Your task to perform on an android device: Add "usb-a to usb-b" to the cart on target.com Image 0: 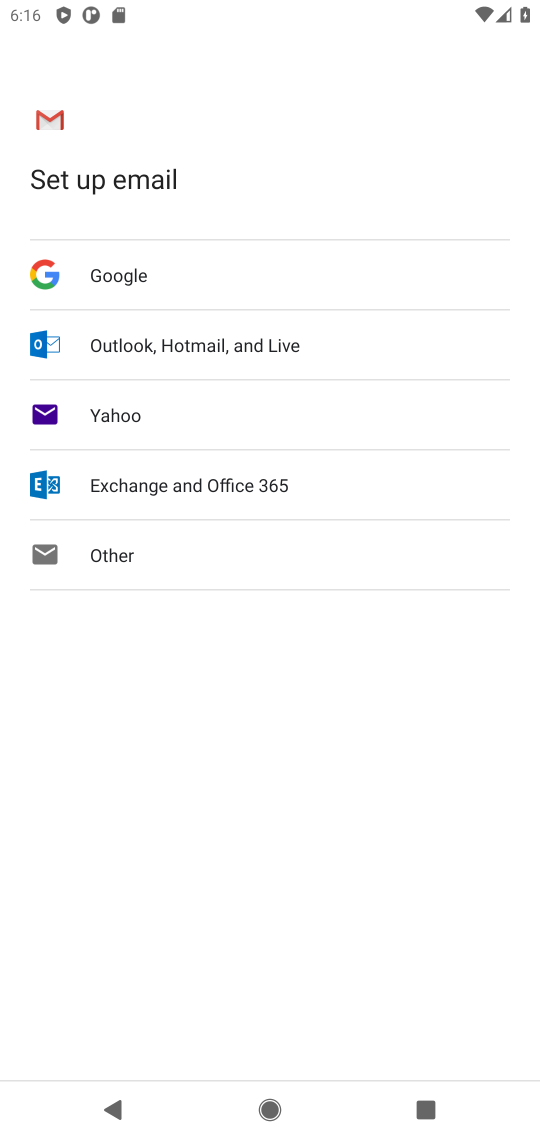
Step 0: press home button
Your task to perform on an android device: Add "usb-a to usb-b" to the cart on target.com Image 1: 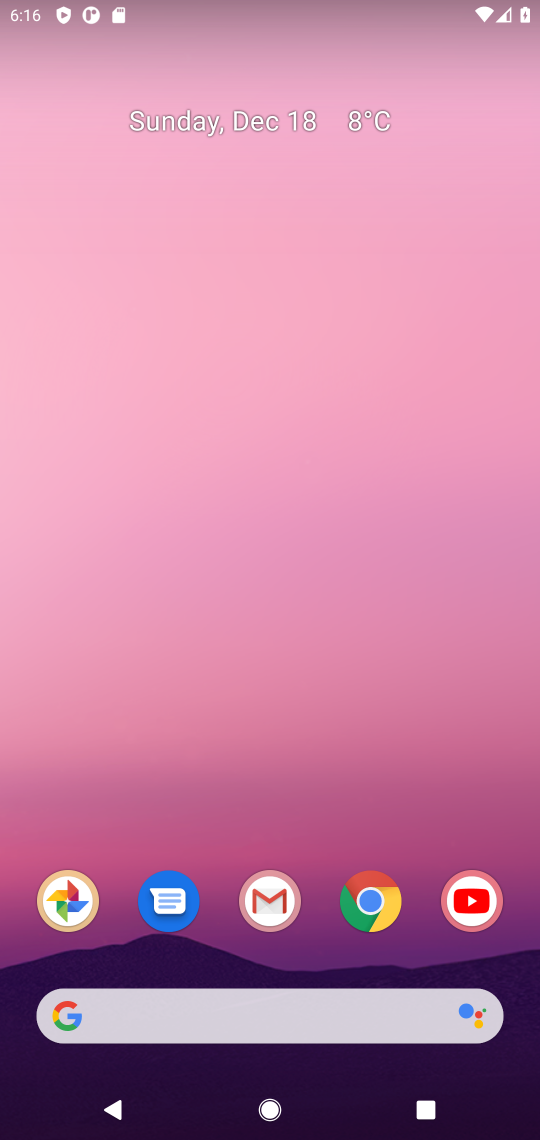
Step 1: click (342, 1006)
Your task to perform on an android device: Add "usb-a to usb-b" to the cart on target.com Image 2: 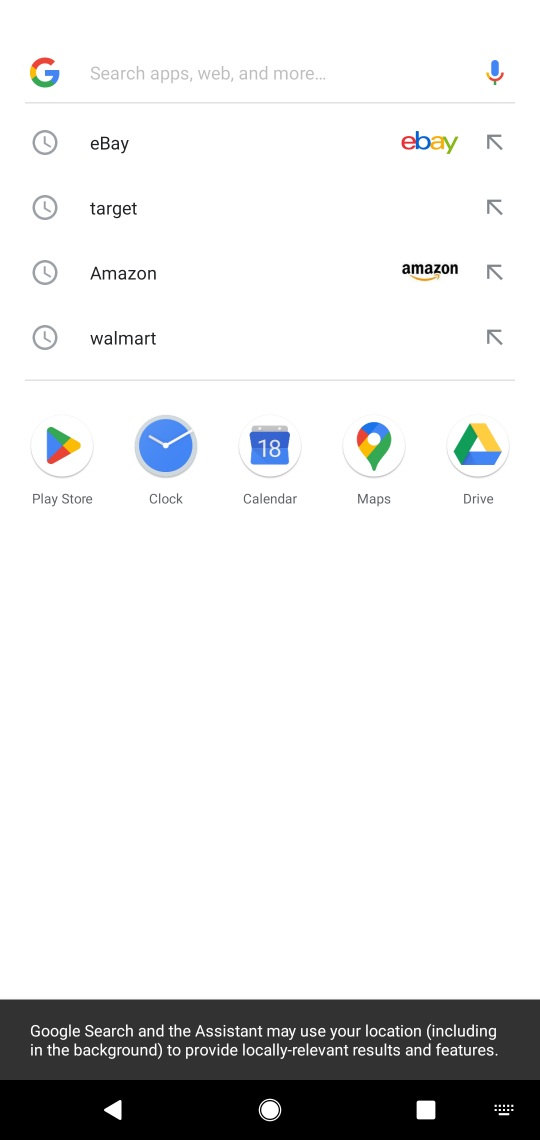
Step 2: click (148, 221)
Your task to perform on an android device: Add "usb-a to usb-b" to the cart on target.com Image 3: 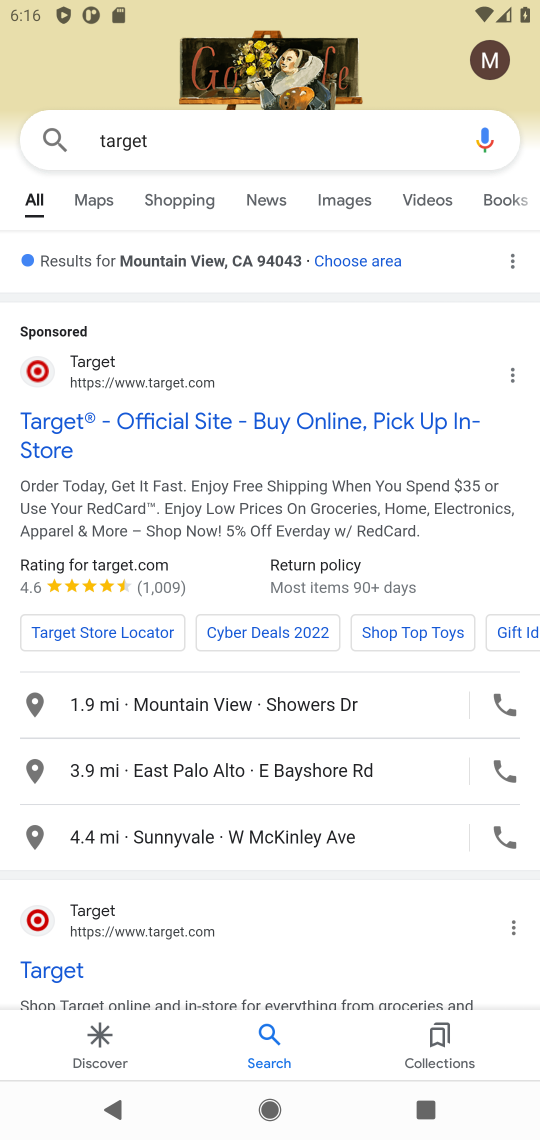
Step 3: click (67, 344)
Your task to perform on an android device: Add "usb-a to usb-b" to the cart on target.com Image 4: 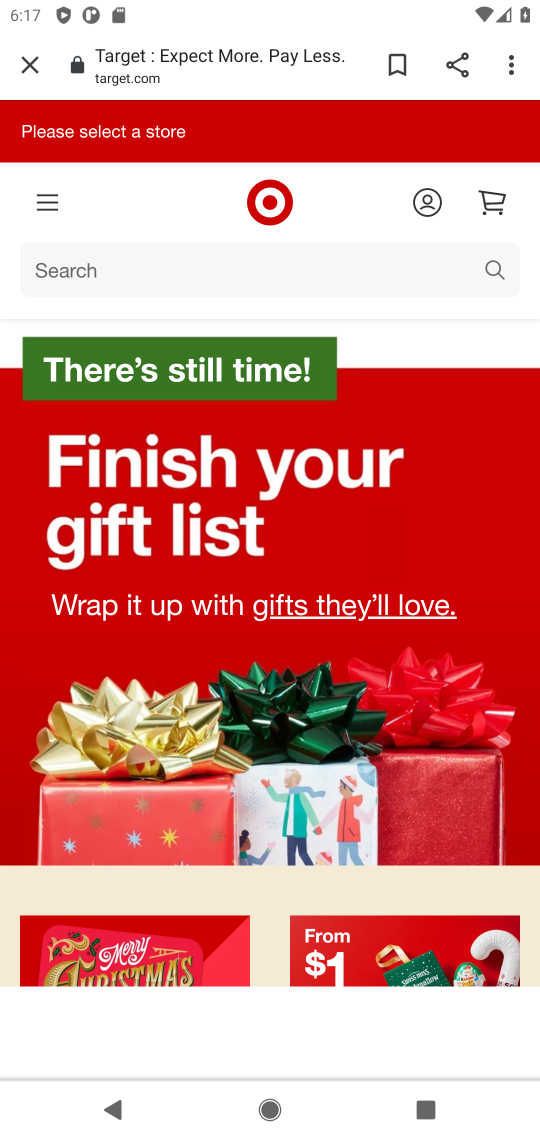
Step 4: click (184, 258)
Your task to perform on an android device: Add "usb-a to usb-b" to the cart on target.com Image 5: 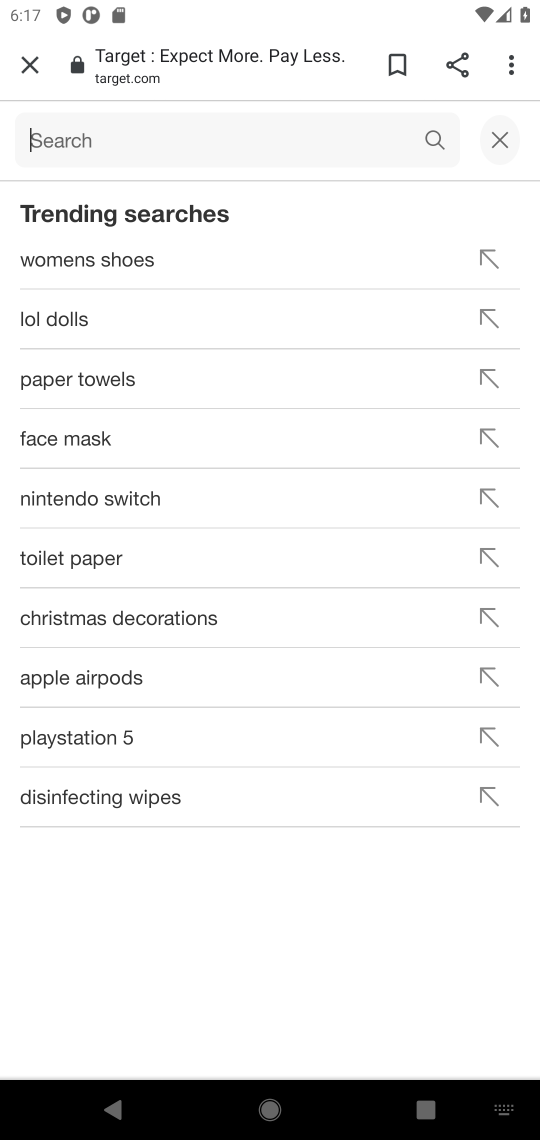
Step 5: type "usb-a to usb-b"
Your task to perform on an android device: Add "usb-a to usb-b" to the cart on target.com Image 6: 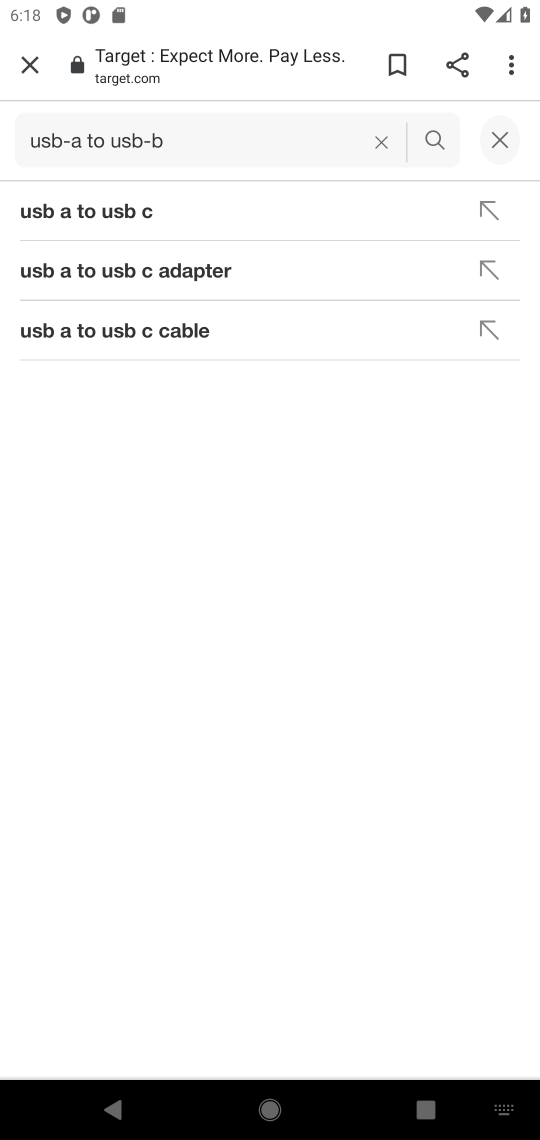
Step 6: click (120, 220)
Your task to perform on an android device: Add "usb-a to usb-b" to the cart on target.com Image 7: 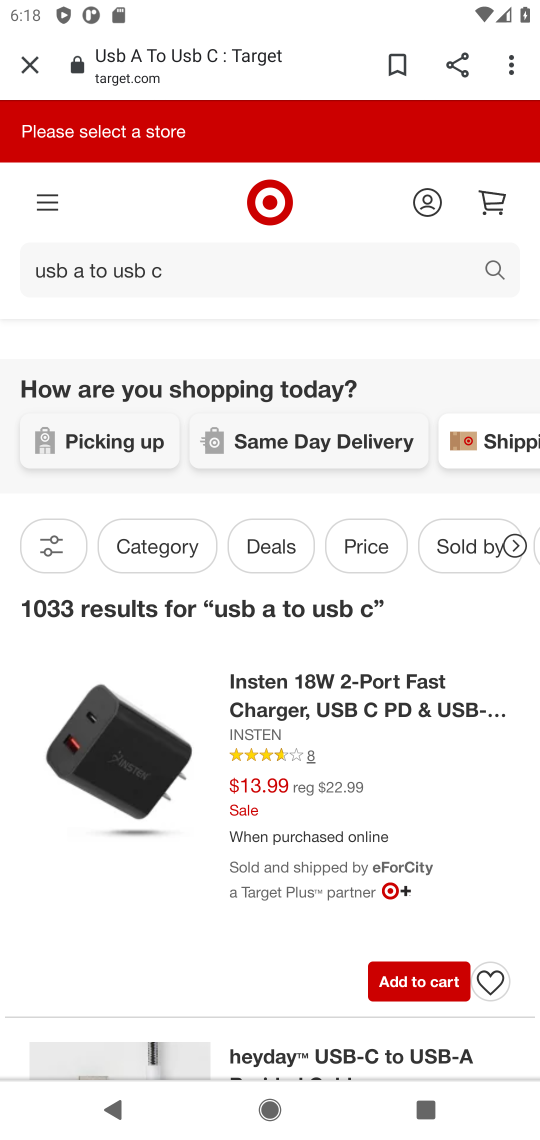
Step 7: click (427, 995)
Your task to perform on an android device: Add "usb-a to usb-b" to the cart on target.com Image 8: 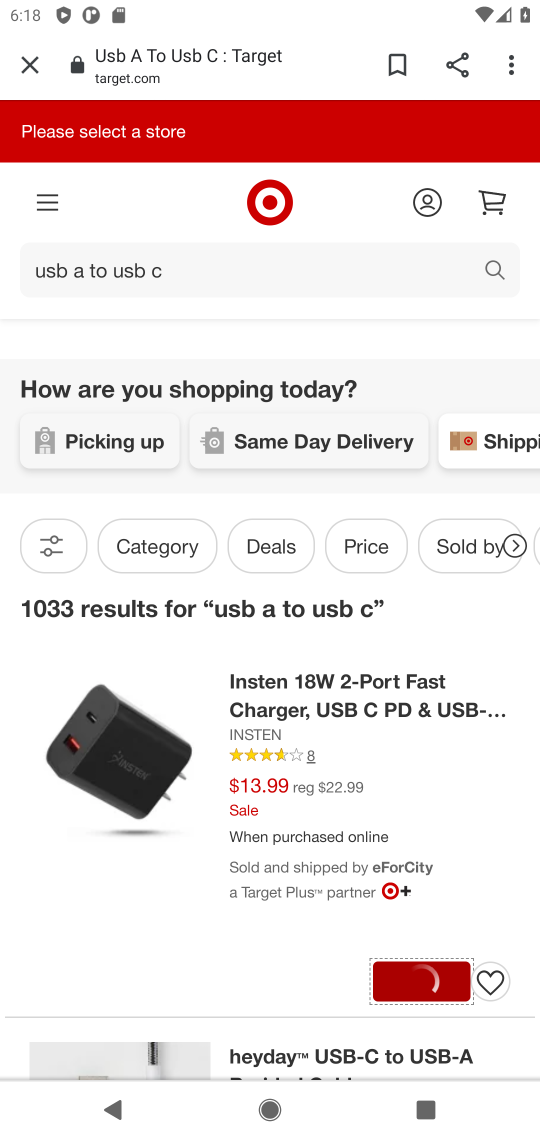
Step 8: task complete